Your task to perform on an android device: Open the phone app and click the voicemail tab. Image 0: 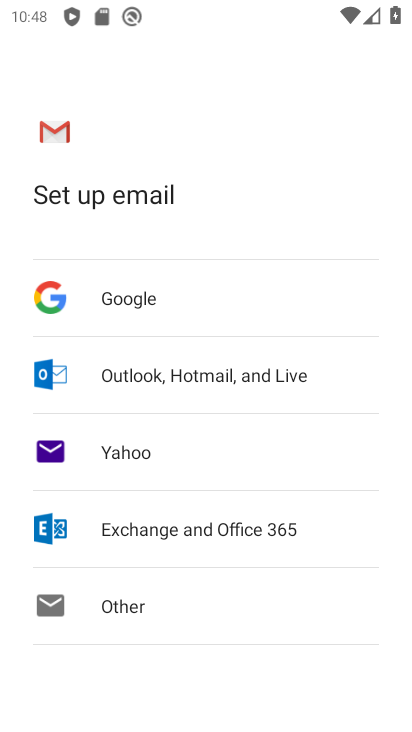
Step 0: press home button
Your task to perform on an android device: Open the phone app and click the voicemail tab. Image 1: 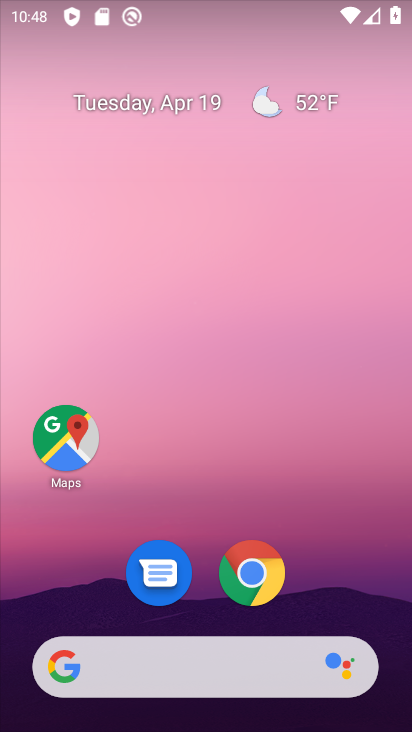
Step 1: drag from (210, 727) to (205, 167)
Your task to perform on an android device: Open the phone app and click the voicemail tab. Image 2: 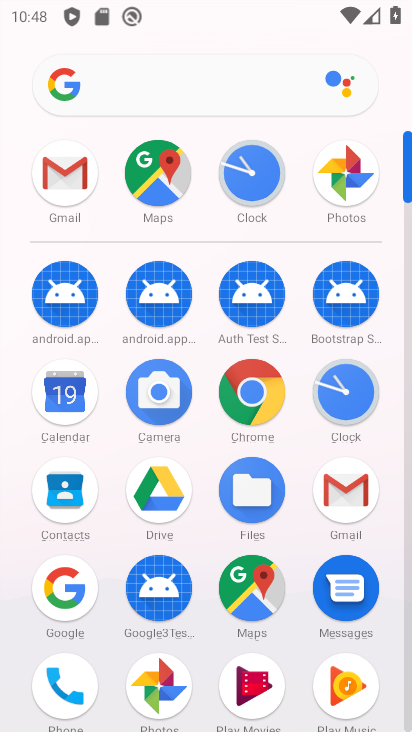
Step 2: drag from (208, 373) to (208, 218)
Your task to perform on an android device: Open the phone app and click the voicemail tab. Image 3: 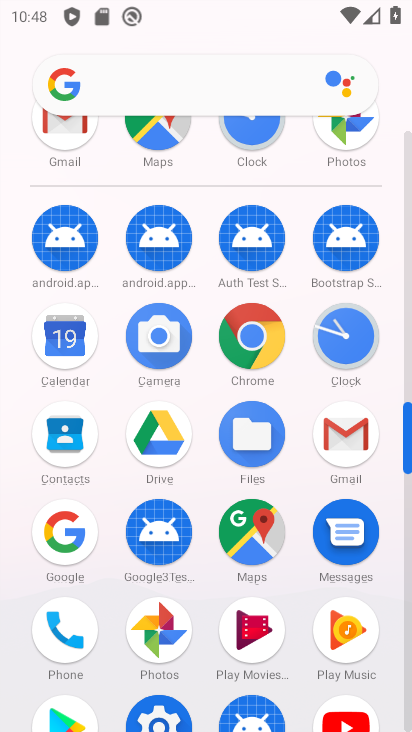
Step 3: drag from (203, 667) to (192, 233)
Your task to perform on an android device: Open the phone app and click the voicemail tab. Image 4: 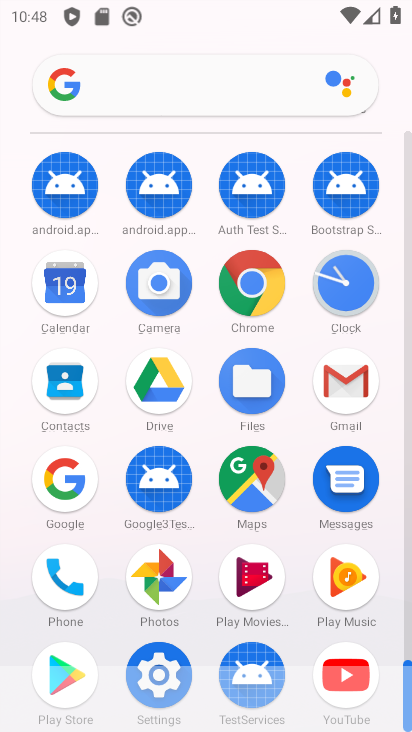
Step 4: click (57, 589)
Your task to perform on an android device: Open the phone app and click the voicemail tab. Image 5: 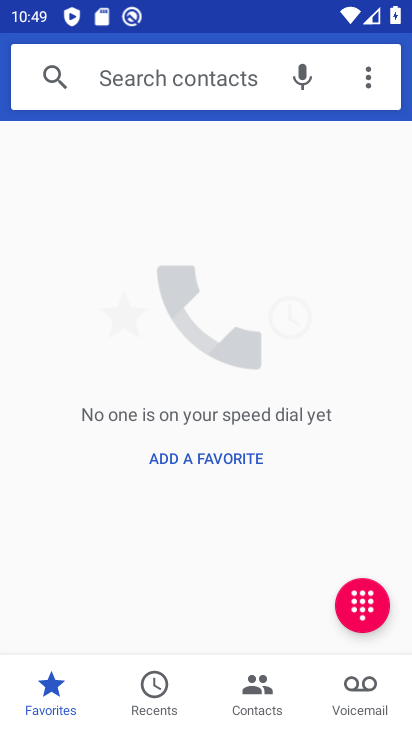
Step 5: click (366, 690)
Your task to perform on an android device: Open the phone app and click the voicemail tab. Image 6: 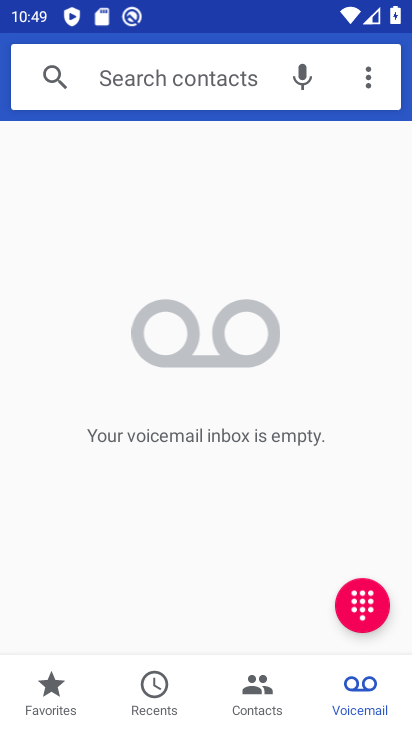
Step 6: task complete